Your task to perform on an android device: install app "Paramount+ | Peak Streaming" Image 0: 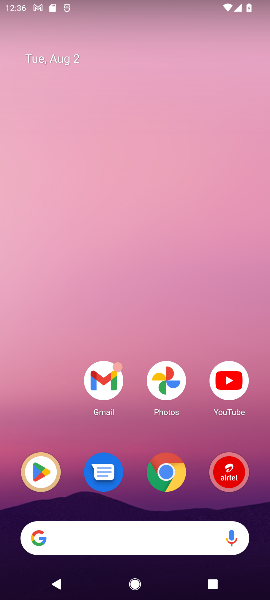
Step 0: click (49, 470)
Your task to perform on an android device: install app "Paramount+ | Peak Streaming" Image 1: 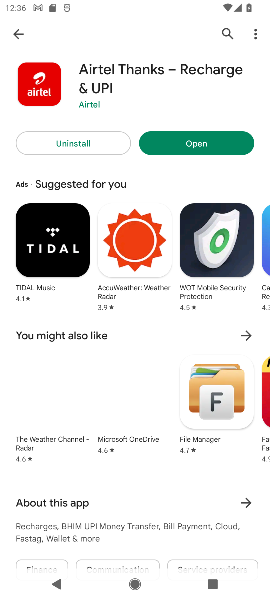
Step 1: click (216, 33)
Your task to perform on an android device: install app "Paramount+ | Peak Streaming" Image 2: 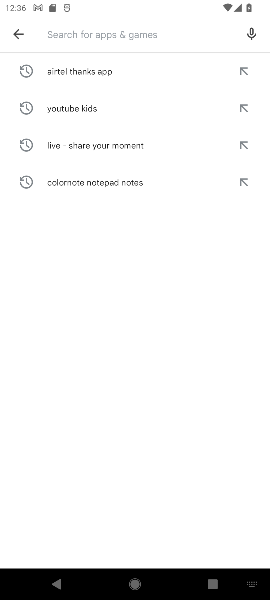
Step 2: type "paramount+ peak streaming"
Your task to perform on an android device: install app "Paramount+ | Peak Streaming" Image 3: 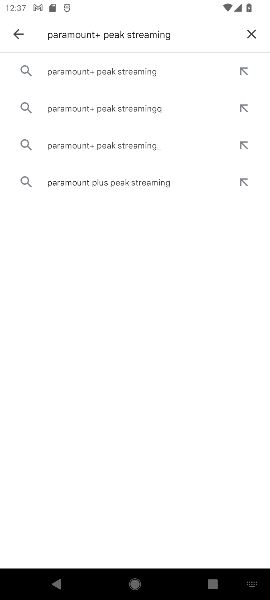
Step 3: click (195, 61)
Your task to perform on an android device: install app "Paramount+ | Peak Streaming" Image 4: 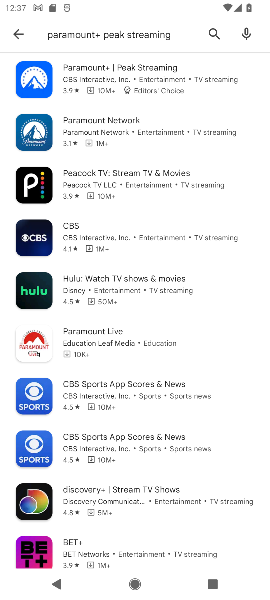
Step 4: click (169, 78)
Your task to perform on an android device: install app "Paramount+ | Peak Streaming" Image 5: 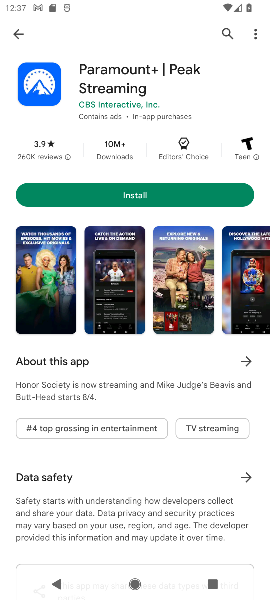
Step 5: click (142, 201)
Your task to perform on an android device: install app "Paramount+ | Peak Streaming" Image 6: 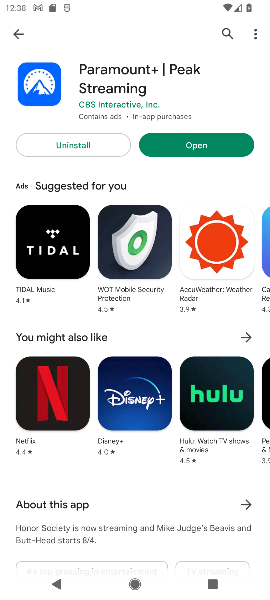
Step 6: task complete